Your task to perform on an android device: set an alarm Image 0: 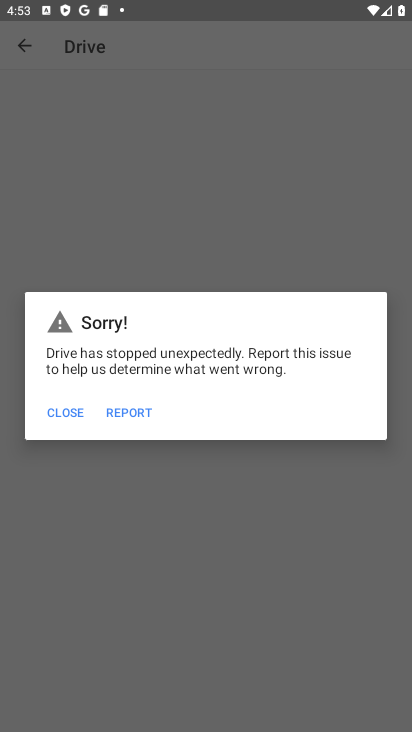
Step 0: press home button
Your task to perform on an android device: set an alarm Image 1: 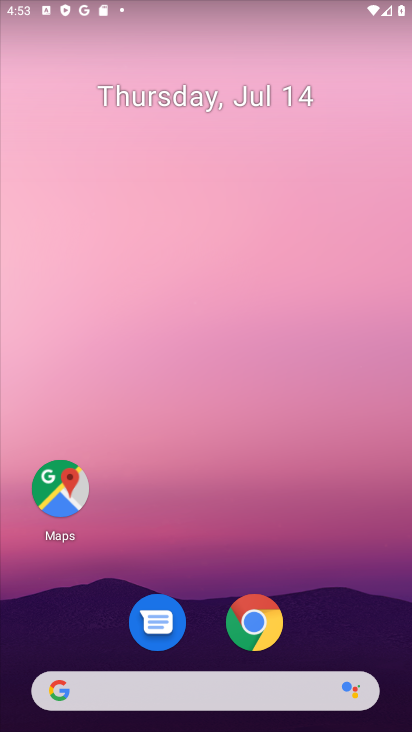
Step 1: drag from (191, 584) to (240, 27)
Your task to perform on an android device: set an alarm Image 2: 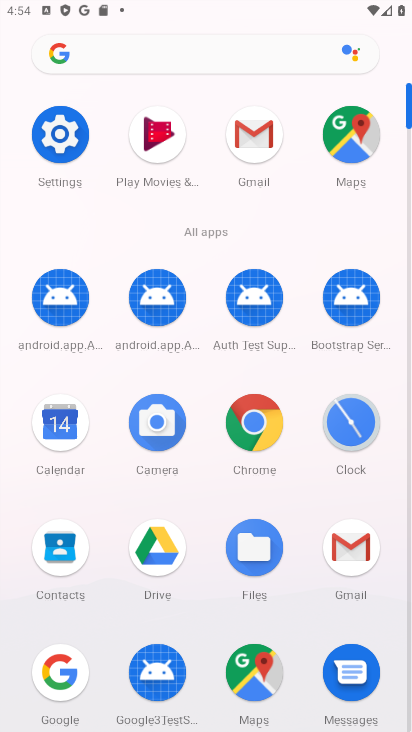
Step 2: click (339, 441)
Your task to perform on an android device: set an alarm Image 3: 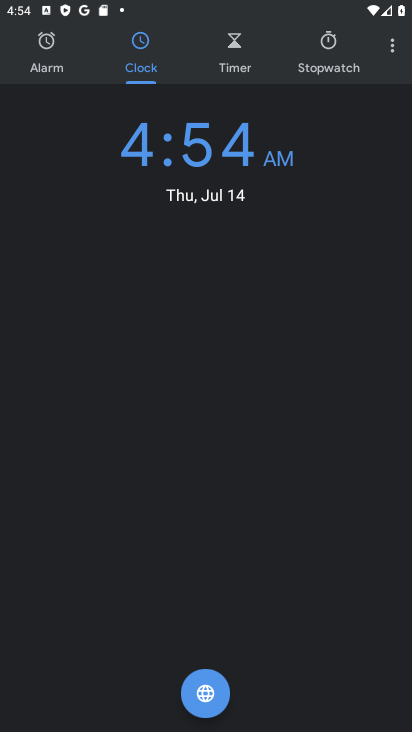
Step 3: click (65, 59)
Your task to perform on an android device: set an alarm Image 4: 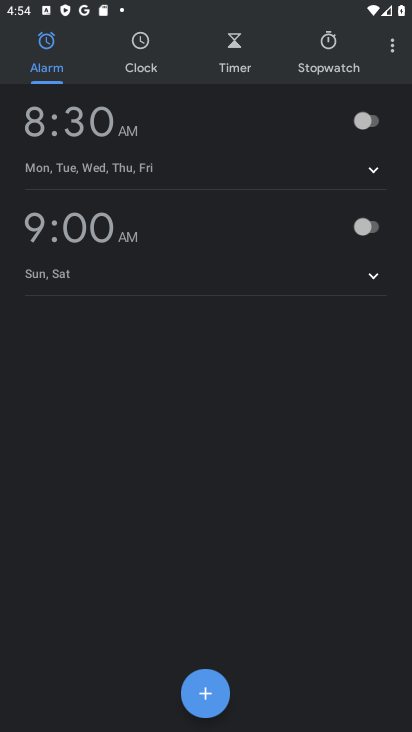
Step 4: click (369, 125)
Your task to perform on an android device: set an alarm Image 5: 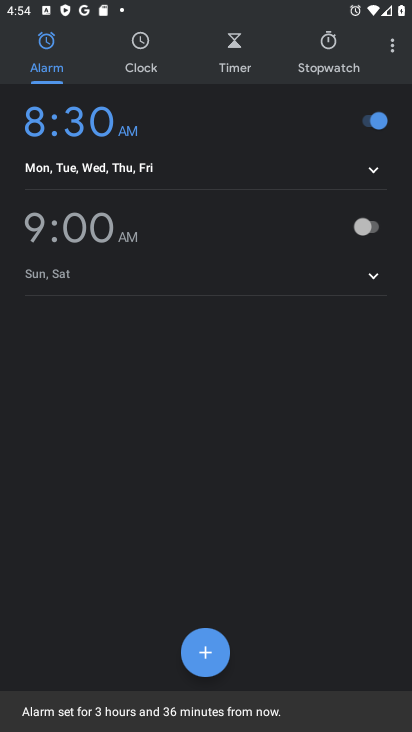
Step 5: task complete